Your task to perform on an android device: open the mobile data screen to see how much data has been used Image 0: 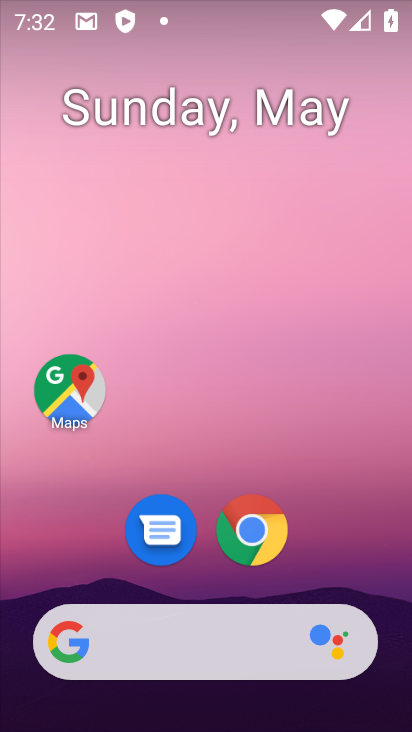
Step 0: drag from (221, 582) to (353, 500)
Your task to perform on an android device: open the mobile data screen to see how much data has been used Image 1: 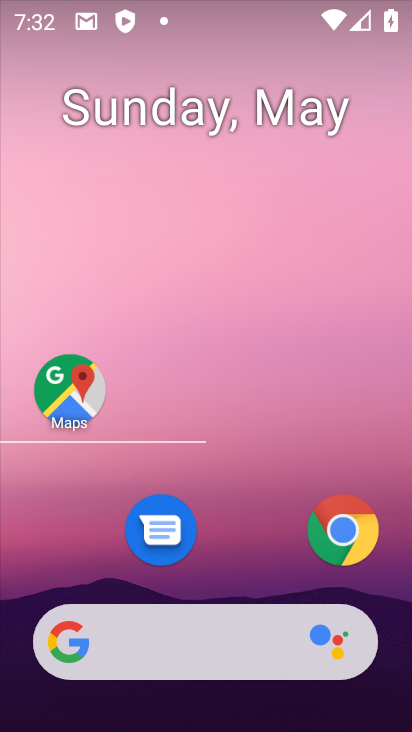
Step 1: click (199, 470)
Your task to perform on an android device: open the mobile data screen to see how much data has been used Image 2: 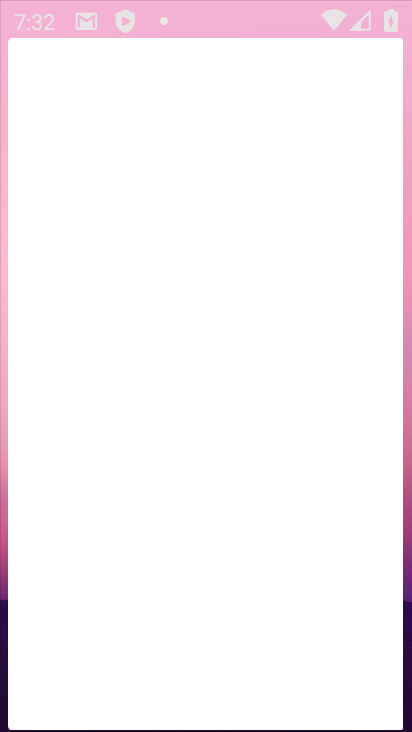
Step 2: drag from (229, 587) to (205, 223)
Your task to perform on an android device: open the mobile data screen to see how much data has been used Image 3: 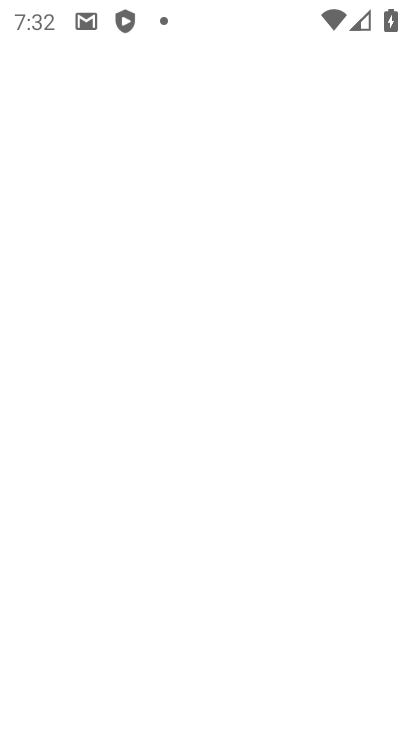
Step 3: press home button
Your task to perform on an android device: open the mobile data screen to see how much data has been used Image 4: 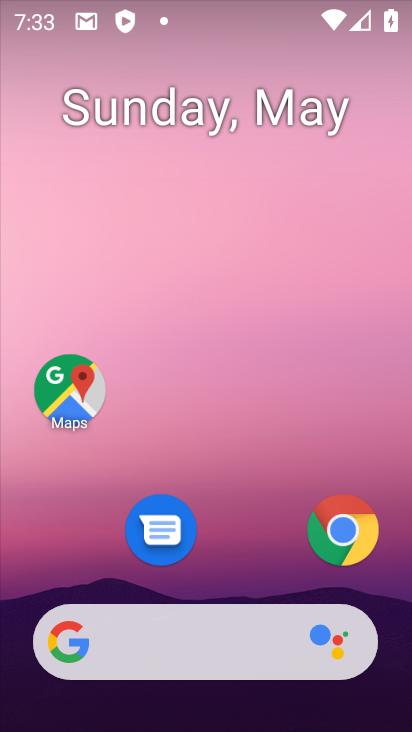
Step 4: drag from (233, 586) to (341, 27)
Your task to perform on an android device: open the mobile data screen to see how much data has been used Image 5: 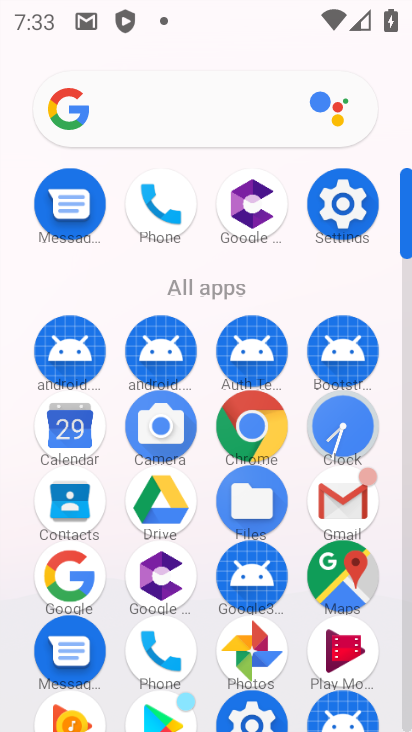
Step 5: click (346, 203)
Your task to perform on an android device: open the mobile data screen to see how much data has been used Image 6: 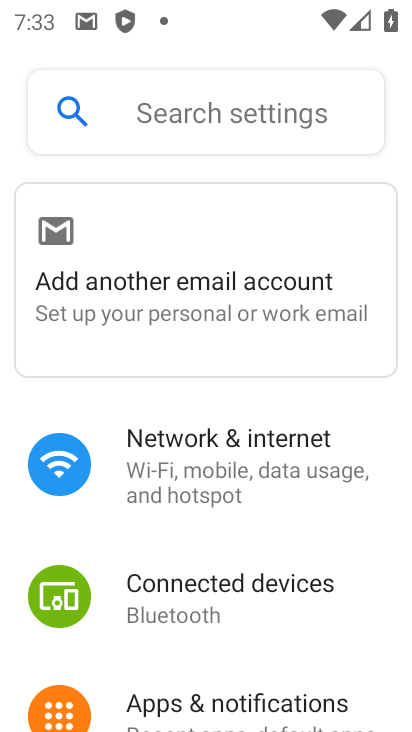
Step 6: click (178, 440)
Your task to perform on an android device: open the mobile data screen to see how much data has been used Image 7: 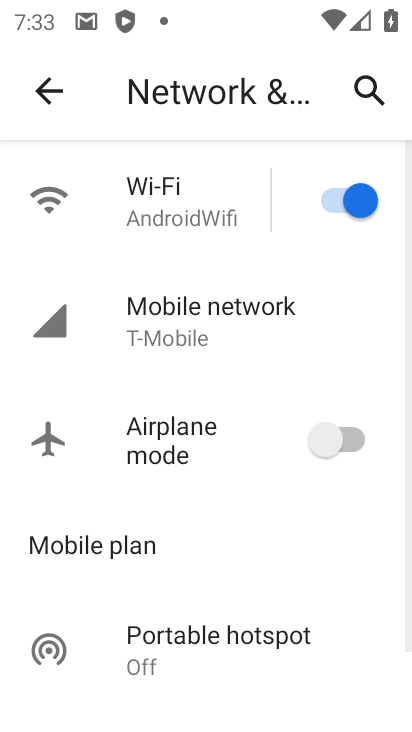
Step 7: click (165, 305)
Your task to perform on an android device: open the mobile data screen to see how much data has been used Image 8: 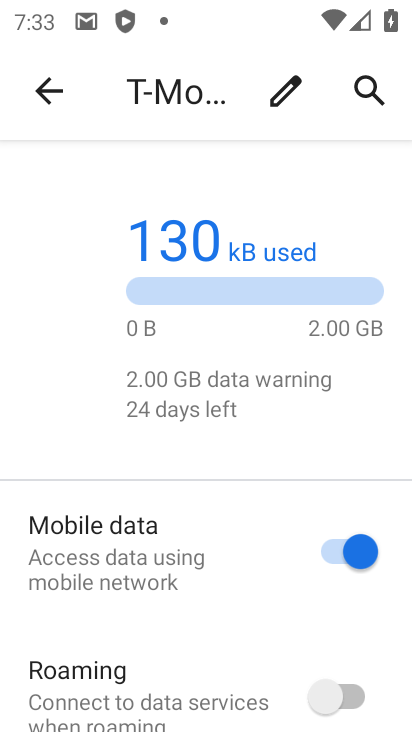
Step 8: task complete